Your task to perform on an android device: Open settings Image 0: 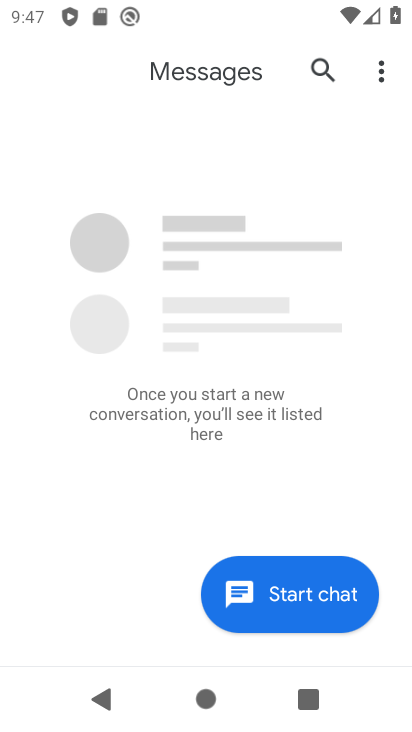
Step 0: press home button
Your task to perform on an android device: Open settings Image 1: 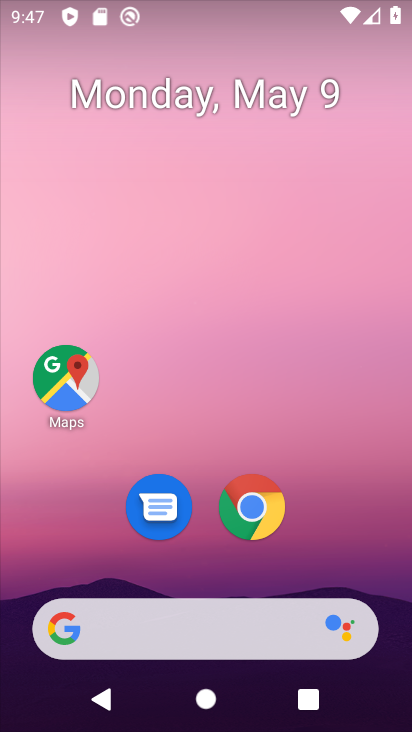
Step 1: drag from (319, 564) to (297, 204)
Your task to perform on an android device: Open settings Image 2: 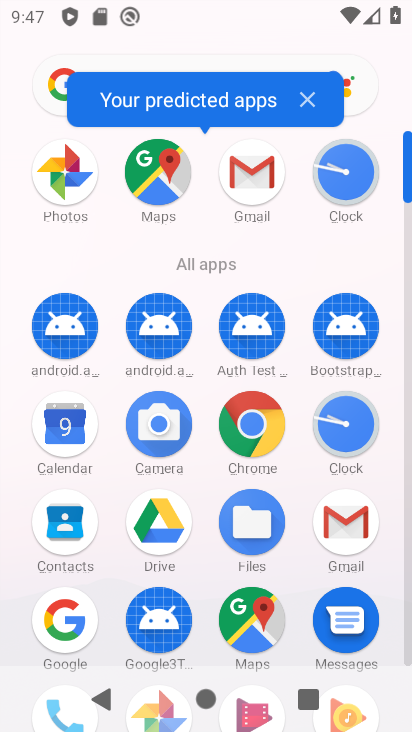
Step 2: drag from (147, 262) to (127, 67)
Your task to perform on an android device: Open settings Image 3: 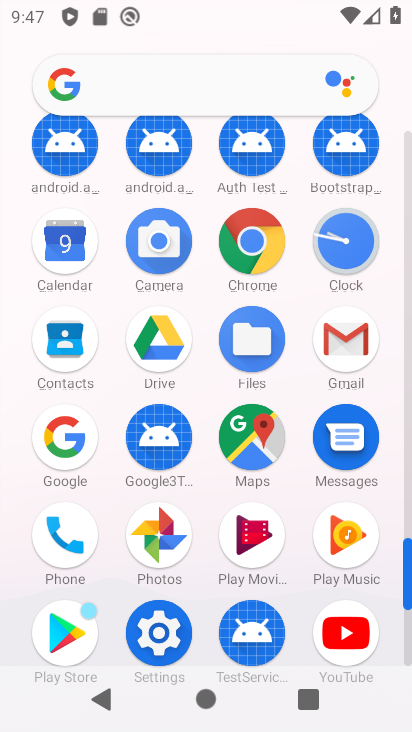
Step 3: drag from (101, 489) to (106, 300)
Your task to perform on an android device: Open settings Image 4: 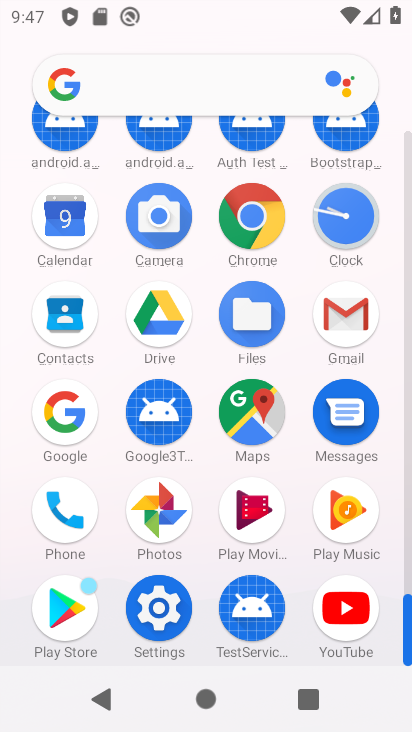
Step 4: click (157, 625)
Your task to perform on an android device: Open settings Image 5: 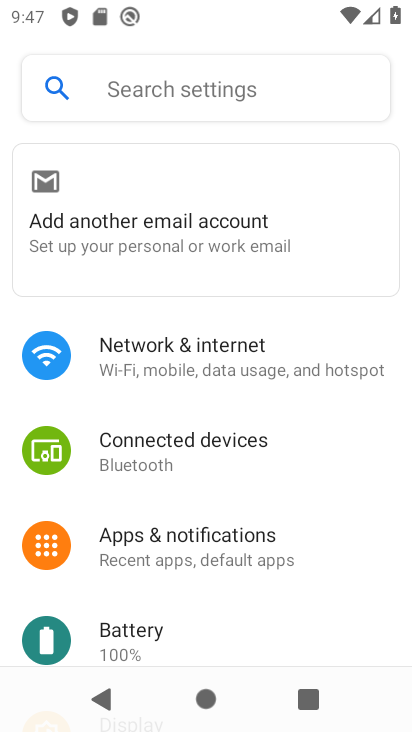
Step 5: task complete